Your task to perform on an android device: turn off airplane mode Image 0: 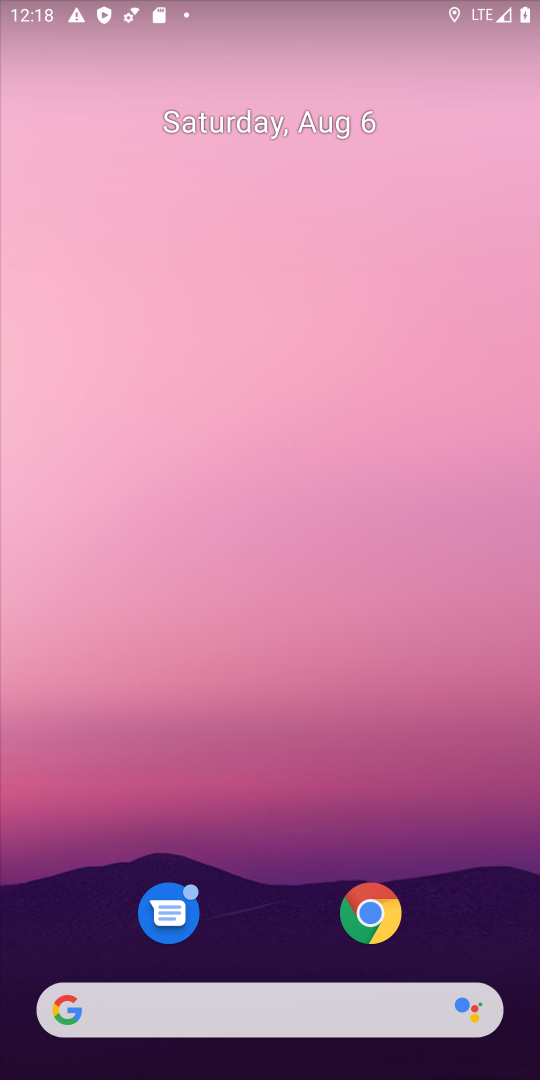
Step 0: press home button
Your task to perform on an android device: turn off airplane mode Image 1: 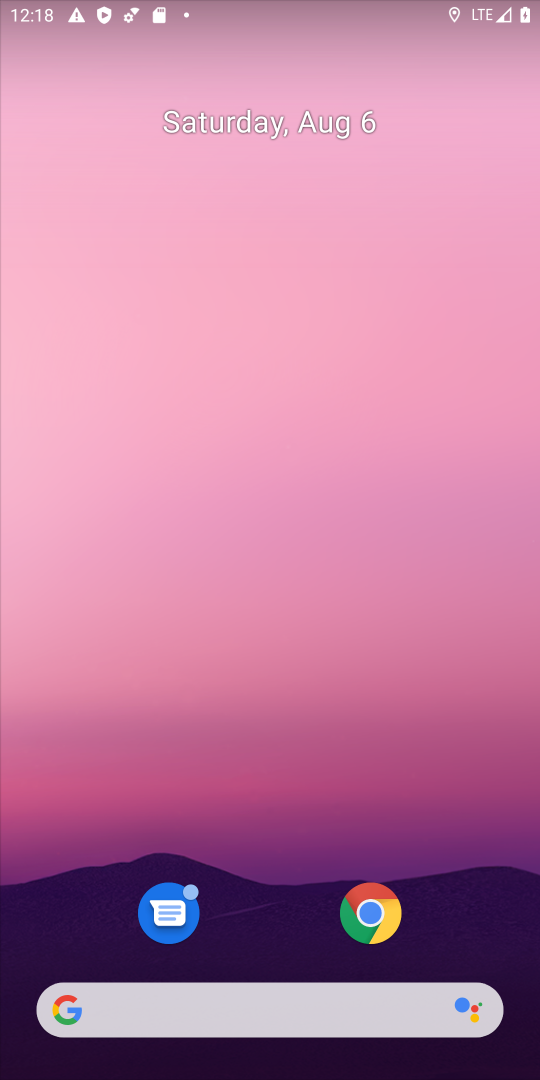
Step 1: drag from (447, 883) to (493, 428)
Your task to perform on an android device: turn off airplane mode Image 2: 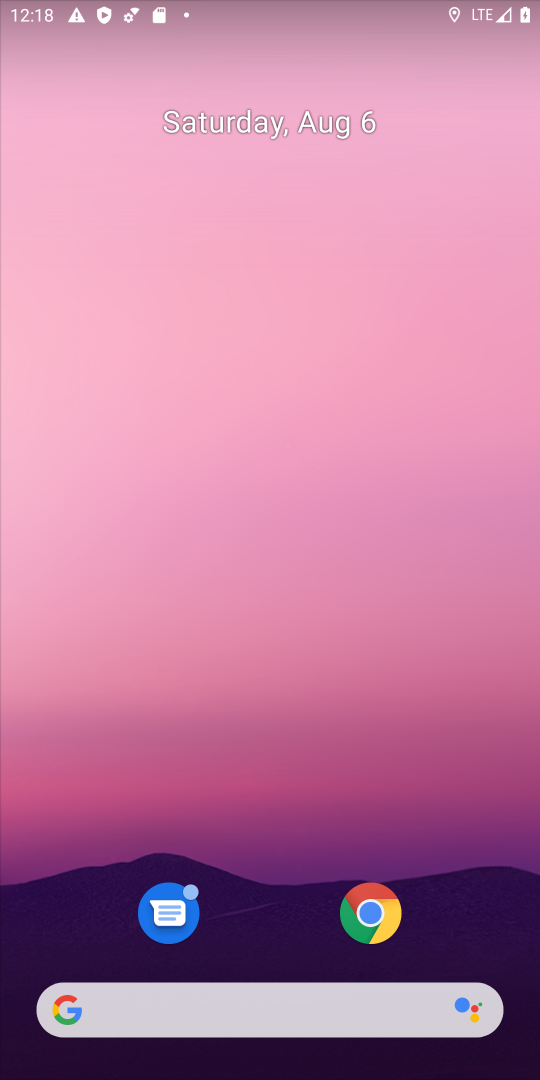
Step 2: drag from (479, 880) to (491, 334)
Your task to perform on an android device: turn off airplane mode Image 3: 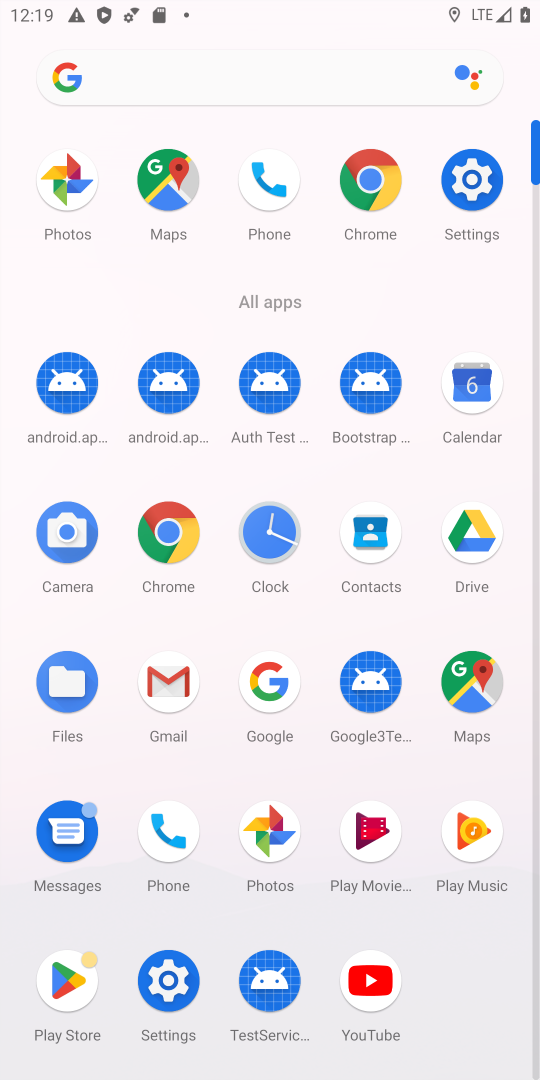
Step 3: click (464, 187)
Your task to perform on an android device: turn off airplane mode Image 4: 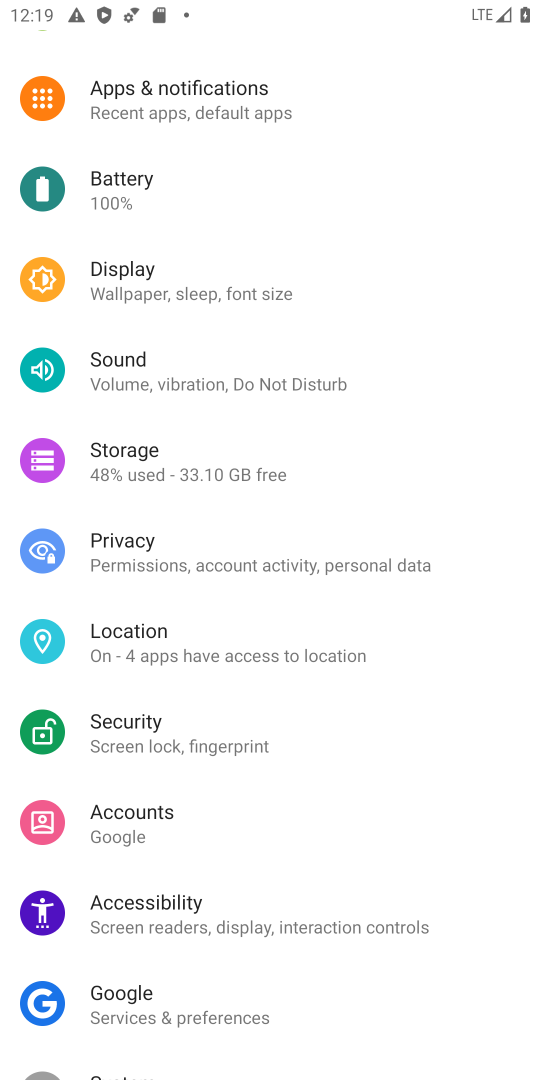
Step 4: drag from (422, 731) to (422, 641)
Your task to perform on an android device: turn off airplane mode Image 5: 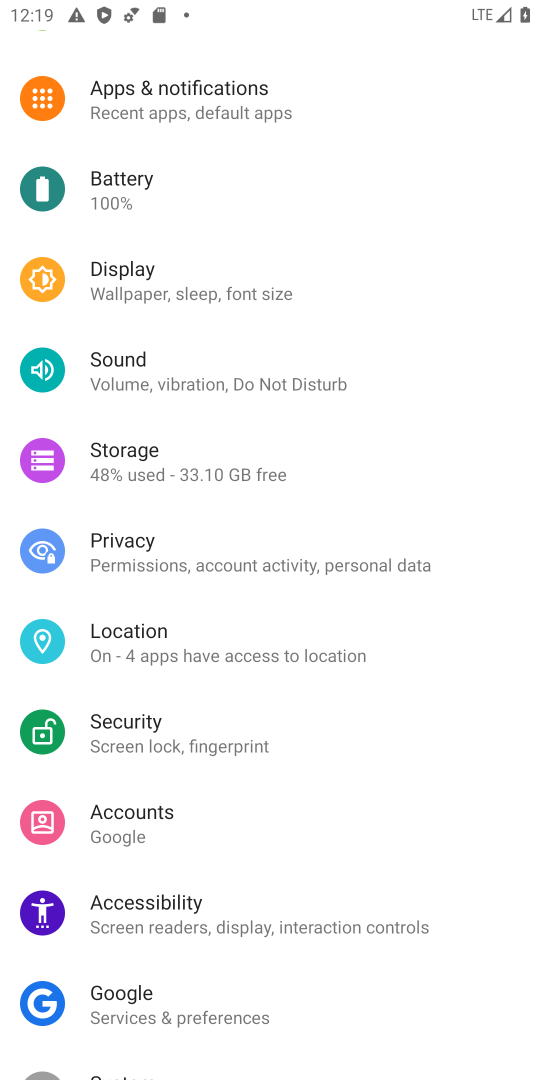
Step 5: drag from (451, 529) to (472, 643)
Your task to perform on an android device: turn off airplane mode Image 6: 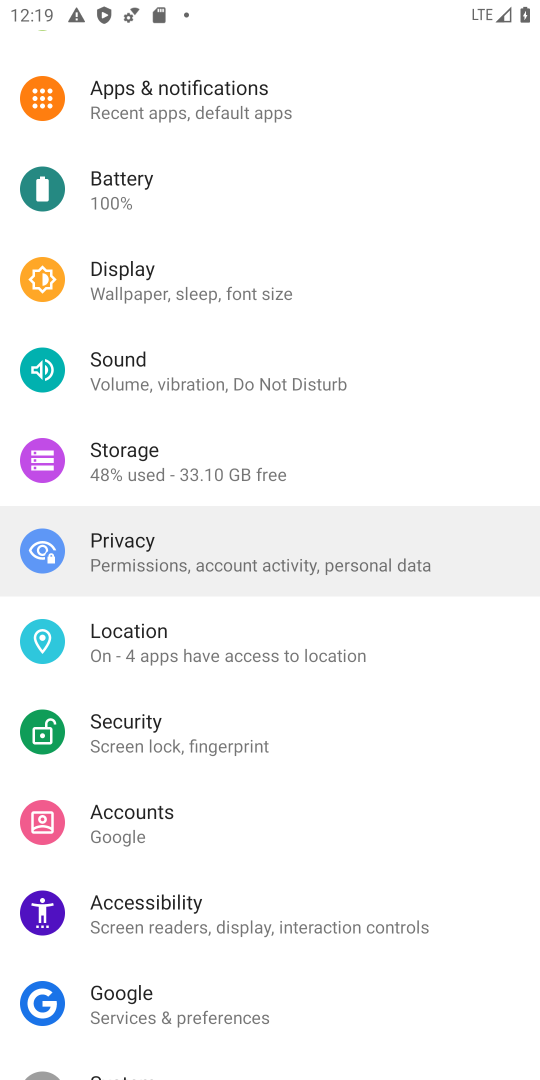
Step 6: drag from (475, 494) to (492, 717)
Your task to perform on an android device: turn off airplane mode Image 7: 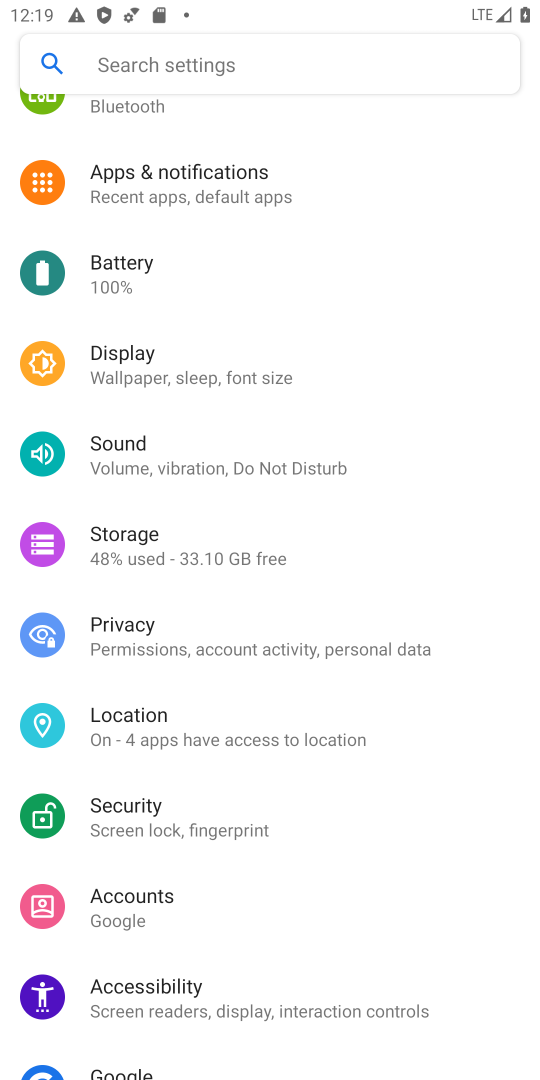
Step 7: drag from (439, 196) to (434, 586)
Your task to perform on an android device: turn off airplane mode Image 8: 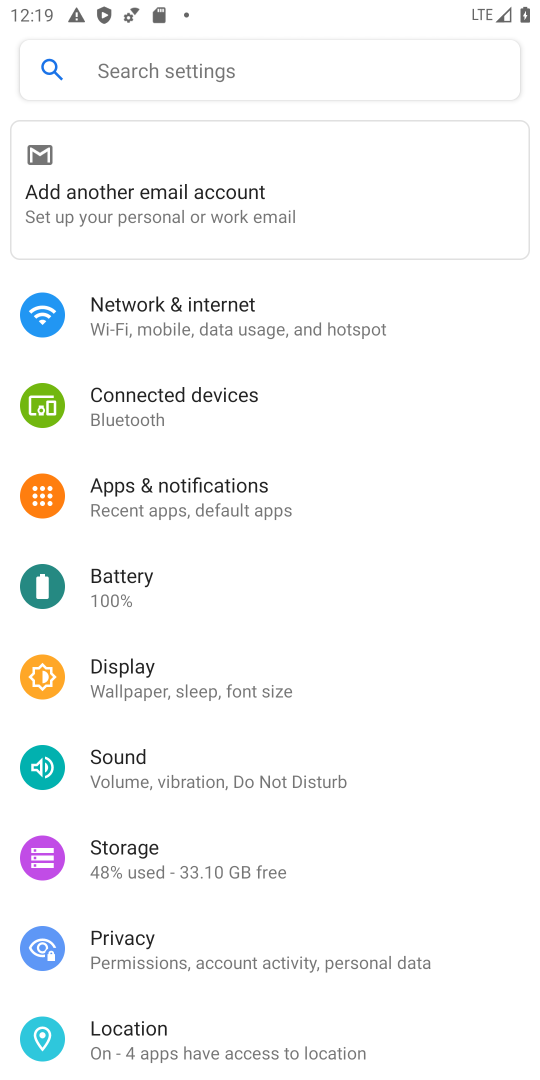
Step 8: click (307, 232)
Your task to perform on an android device: turn off airplane mode Image 9: 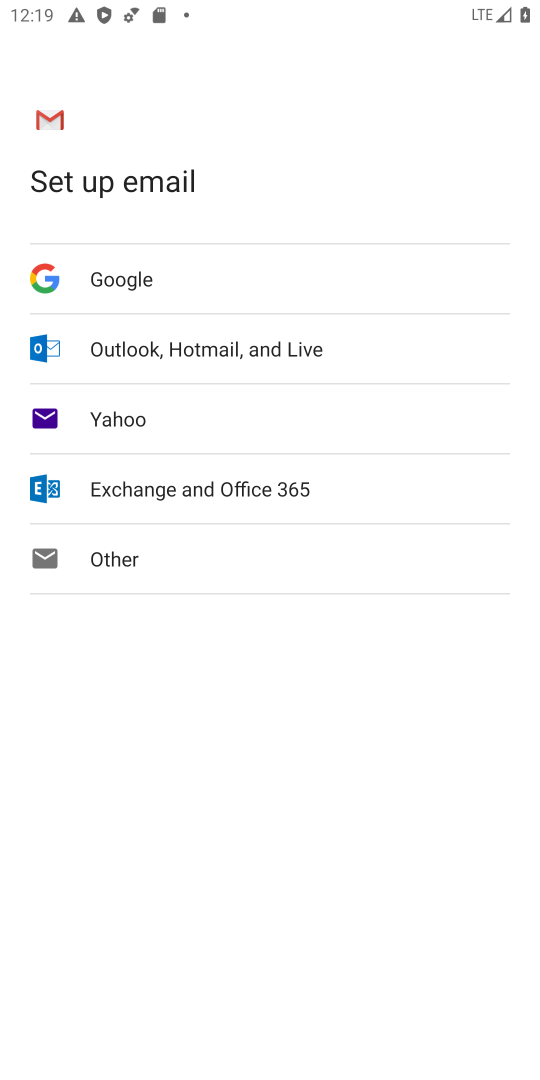
Step 9: click (334, 317)
Your task to perform on an android device: turn off airplane mode Image 10: 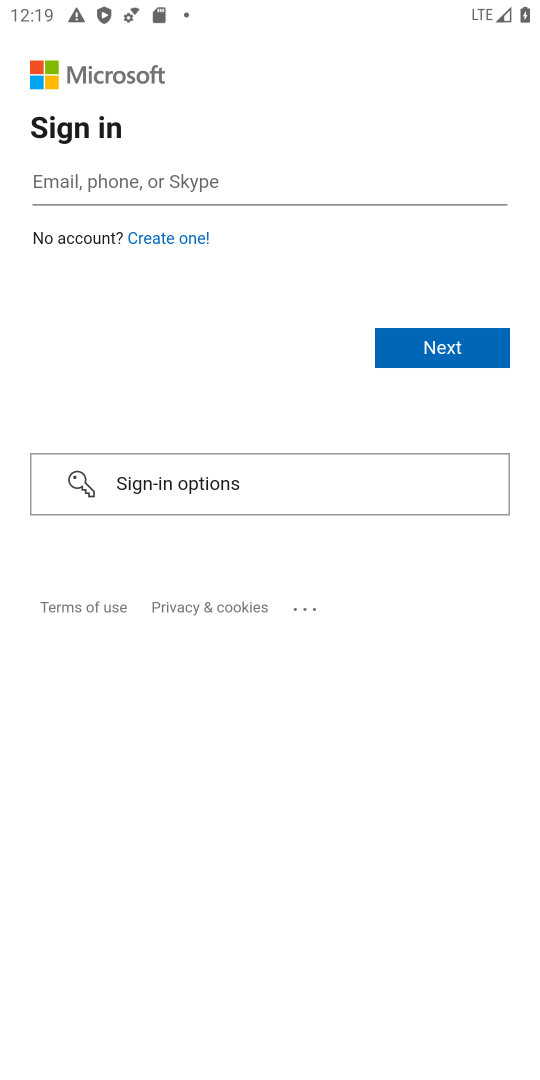
Step 10: press back button
Your task to perform on an android device: turn off airplane mode Image 11: 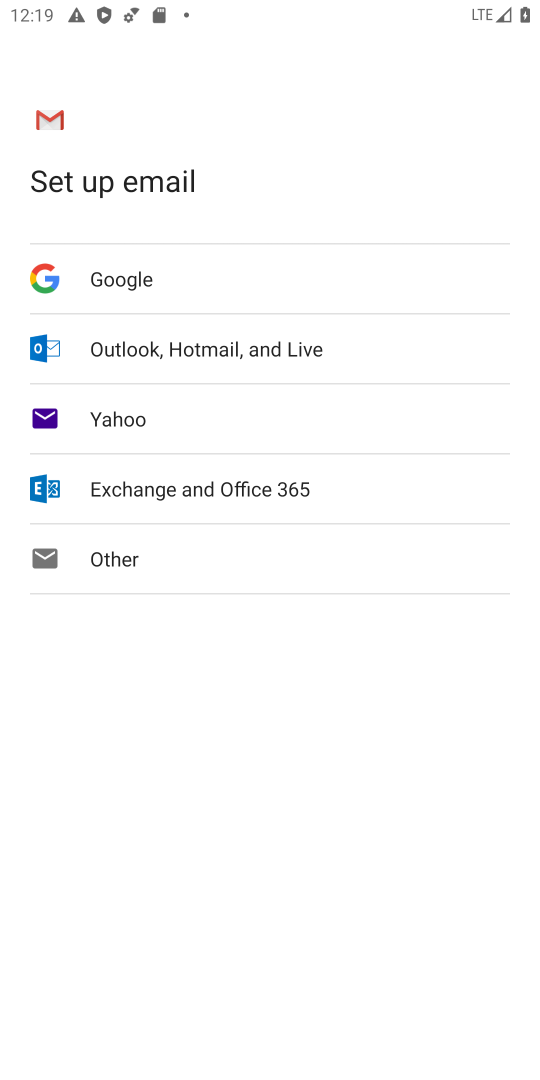
Step 11: press back button
Your task to perform on an android device: turn off airplane mode Image 12: 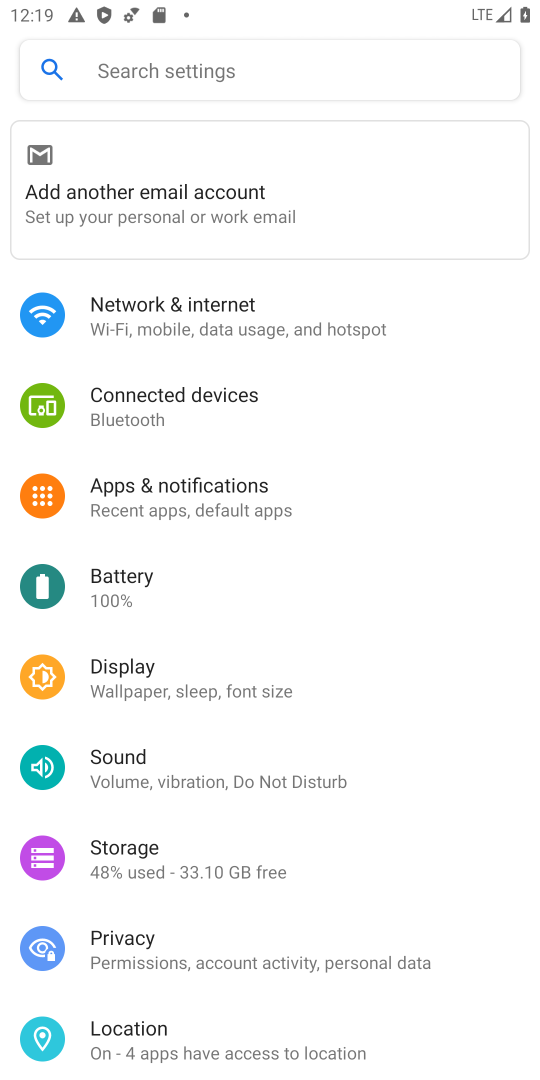
Step 12: click (350, 324)
Your task to perform on an android device: turn off airplane mode Image 13: 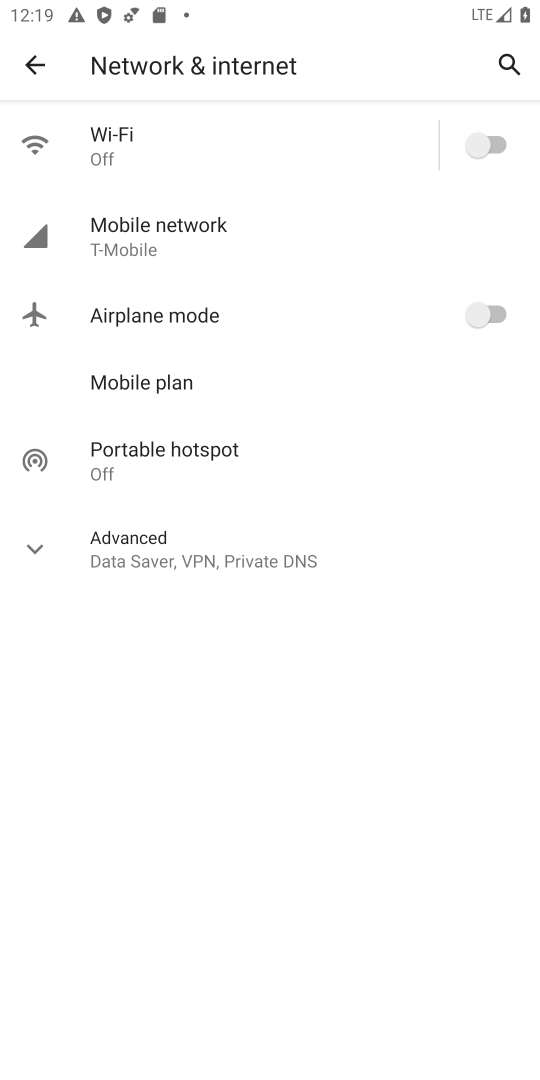
Step 13: task complete